Your task to perform on an android device: Go to calendar. Show me events next week Image 0: 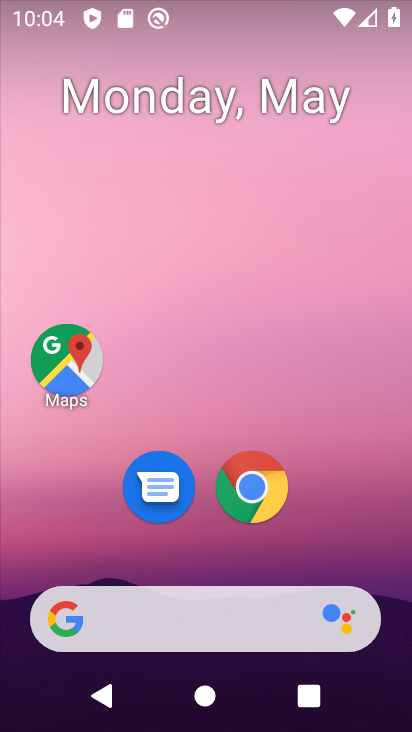
Step 0: drag from (392, 554) to (370, 123)
Your task to perform on an android device: Go to calendar. Show me events next week Image 1: 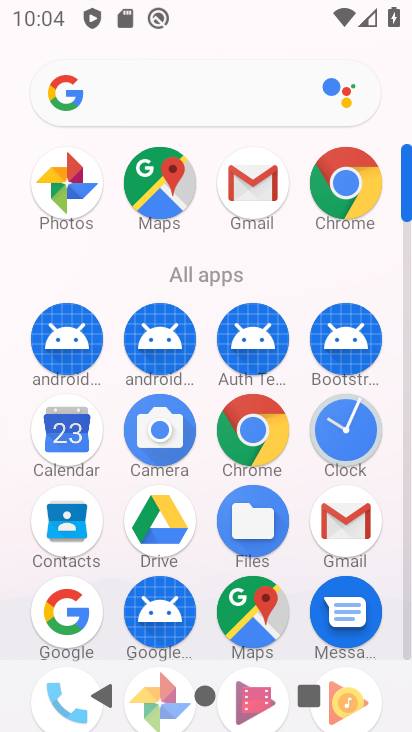
Step 1: click (68, 448)
Your task to perform on an android device: Go to calendar. Show me events next week Image 2: 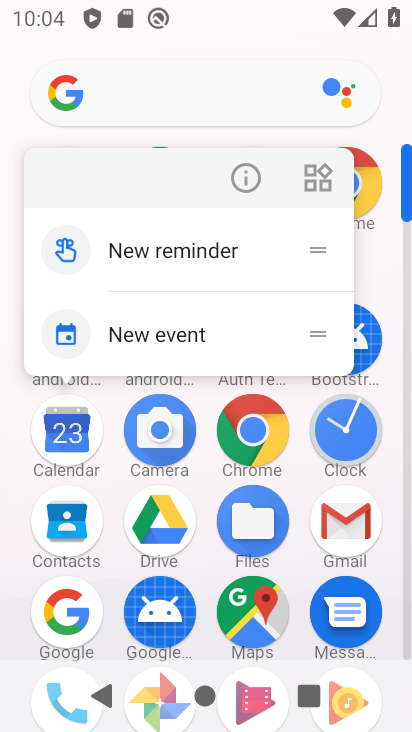
Step 2: click (68, 448)
Your task to perform on an android device: Go to calendar. Show me events next week Image 3: 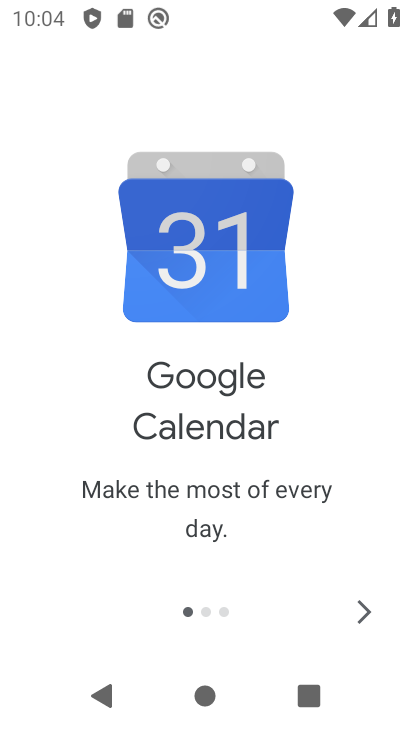
Step 3: click (370, 609)
Your task to perform on an android device: Go to calendar. Show me events next week Image 4: 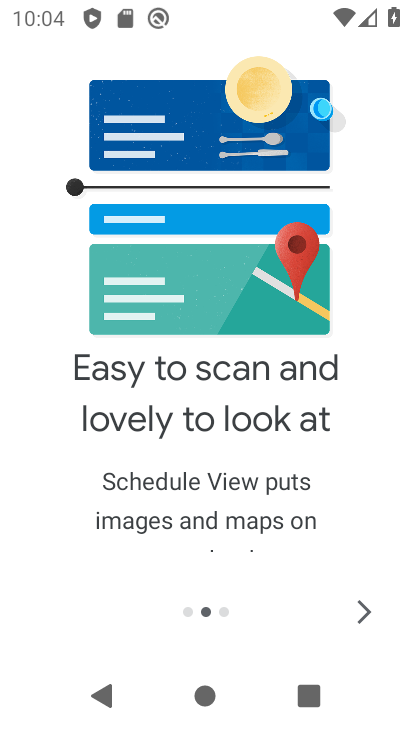
Step 4: click (370, 609)
Your task to perform on an android device: Go to calendar. Show me events next week Image 5: 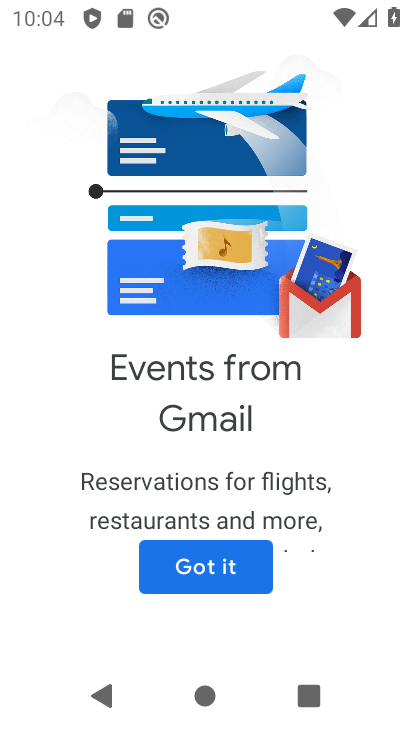
Step 5: click (229, 577)
Your task to perform on an android device: Go to calendar. Show me events next week Image 6: 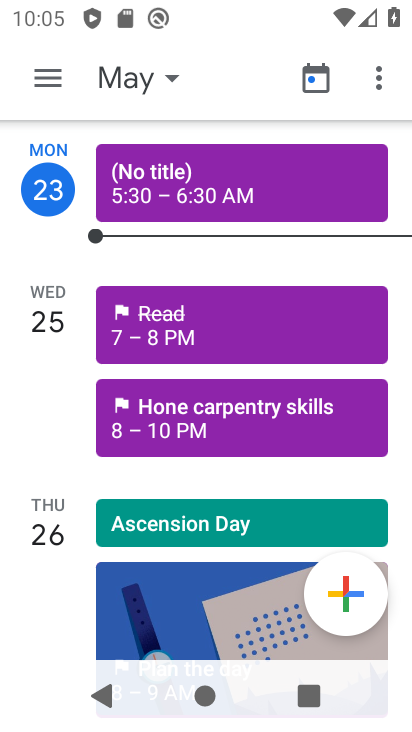
Step 6: drag from (241, 602) to (248, 434)
Your task to perform on an android device: Go to calendar. Show me events next week Image 7: 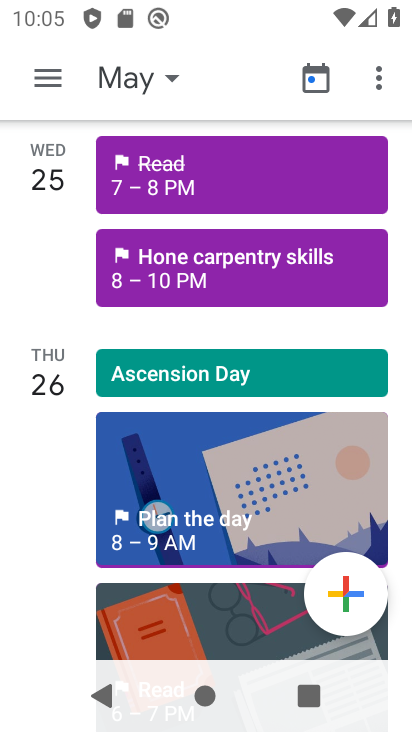
Step 7: drag from (234, 563) to (244, 401)
Your task to perform on an android device: Go to calendar. Show me events next week Image 8: 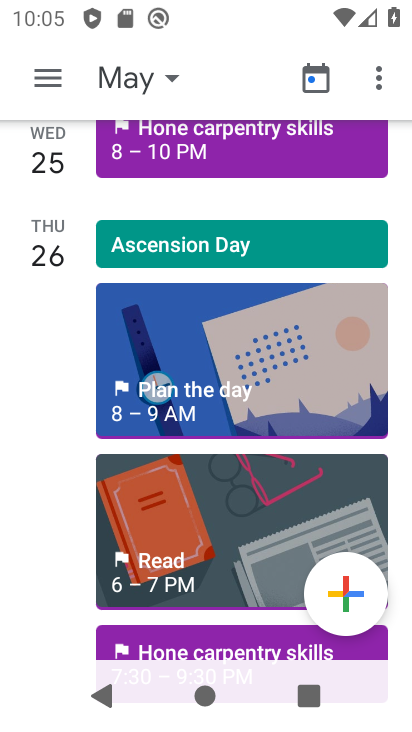
Step 8: drag from (254, 599) to (255, 379)
Your task to perform on an android device: Go to calendar. Show me events next week Image 9: 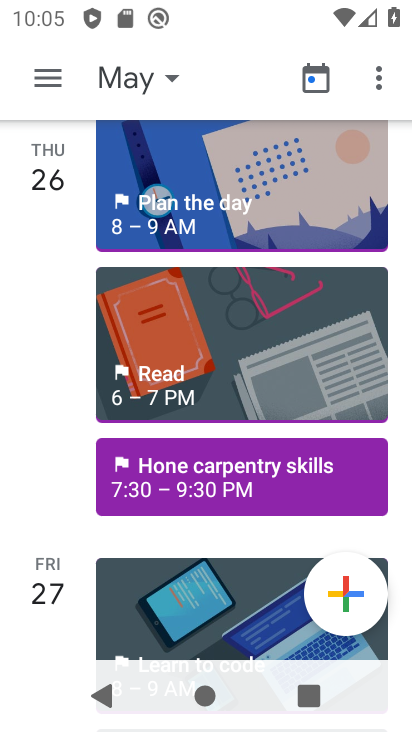
Step 9: drag from (265, 609) to (251, 411)
Your task to perform on an android device: Go to calendar. Show me events next week Image 10: 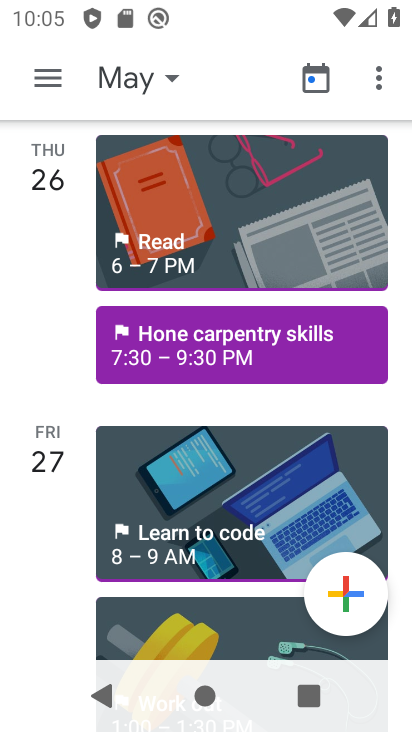
Step 10: drag from (245, 602) to (245, 454)
Your task to perform on an android device: Go to calendar. Show me events next week Image 11: 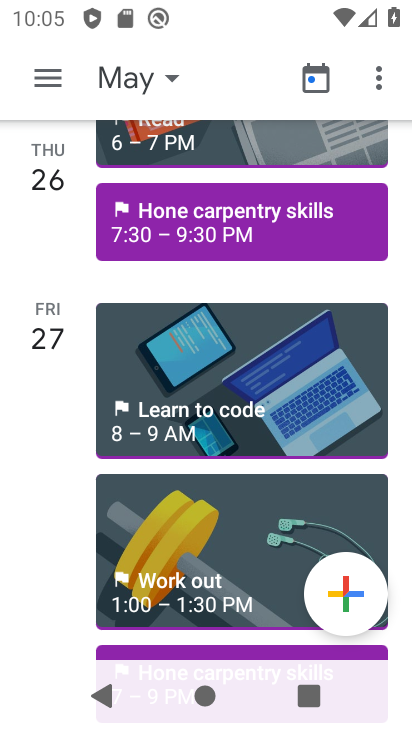
Step 11: click (168, 68)
Your task to perform on an android device: Go to calendar. Show me events next week Image 12: 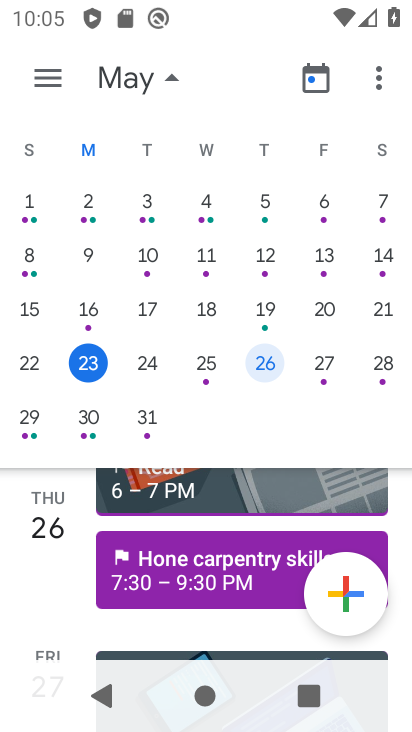
Step 12: click (97, 421)
Your task to perform on an android device: Go to calendar. Show me events next week Image 13: 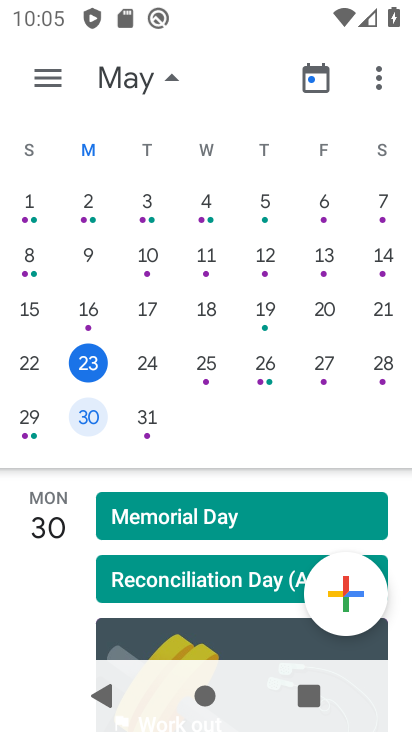
Step 13: task complete